Your task to perform on an android device: Go to network settings Image 0: 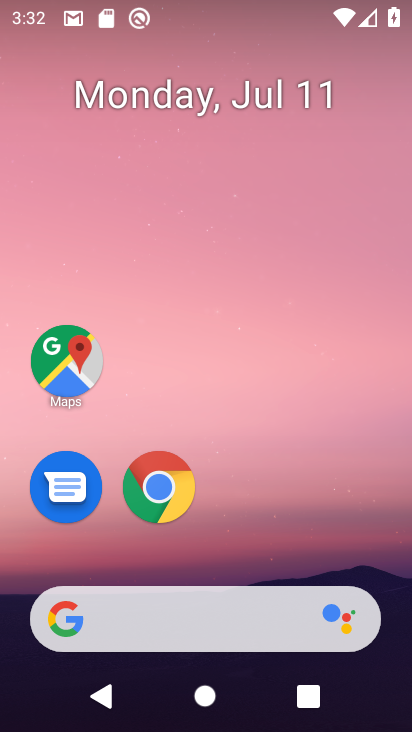
Step 0: drag from (189, 593) to (304, 4)
Your task to perform on an android device: Go to network settings Image 1: 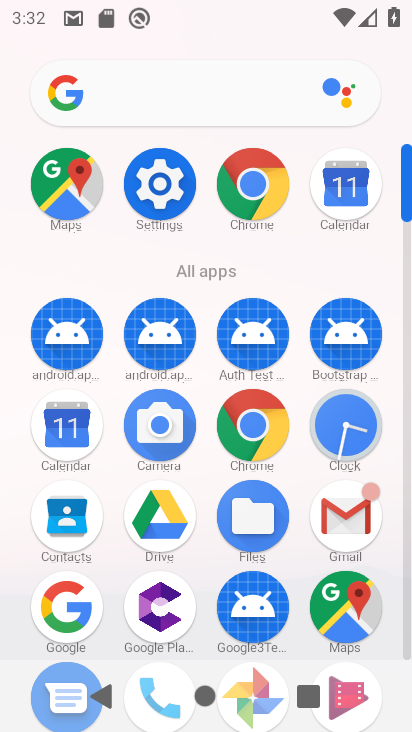
Step 1: click (171, 196)
Your task to perform on an android device: Go to network settings Image 2: 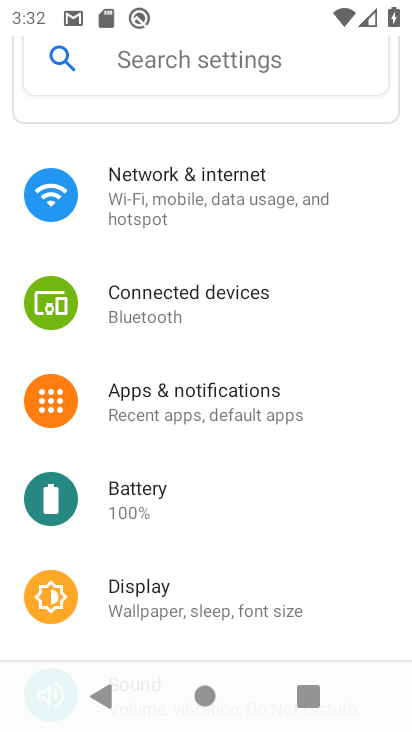
Step 2: click (174, 192)
Your task to perform on an android device: Go to network settings Image 3: 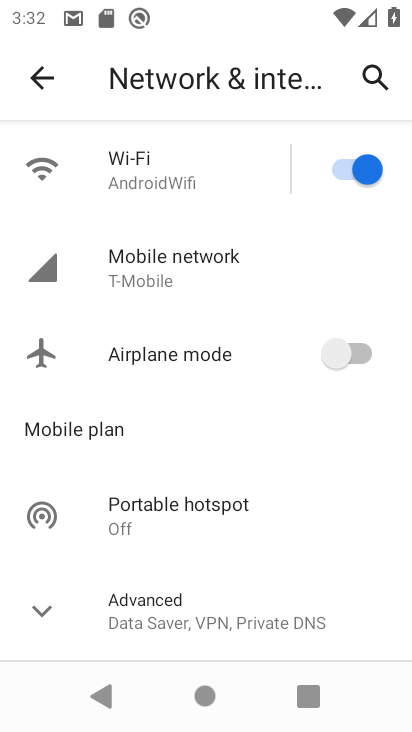
Step 3: click (196, 273)
Your task to perform on an android device: Go to network settings Image 4: 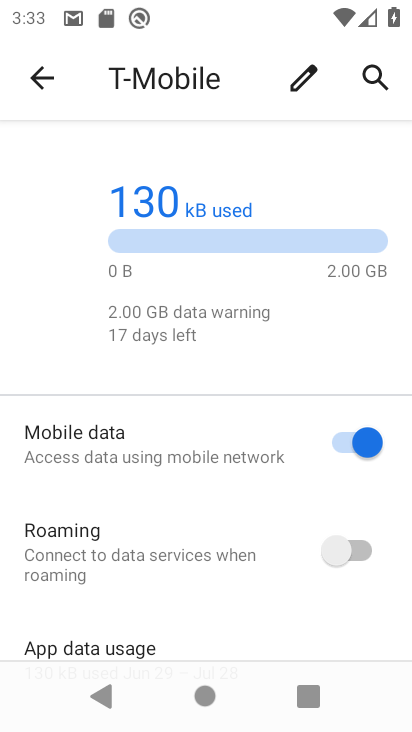
Step 4: task complete